Your task to perform on an android device: Do I have any events this weekend? Image 0: 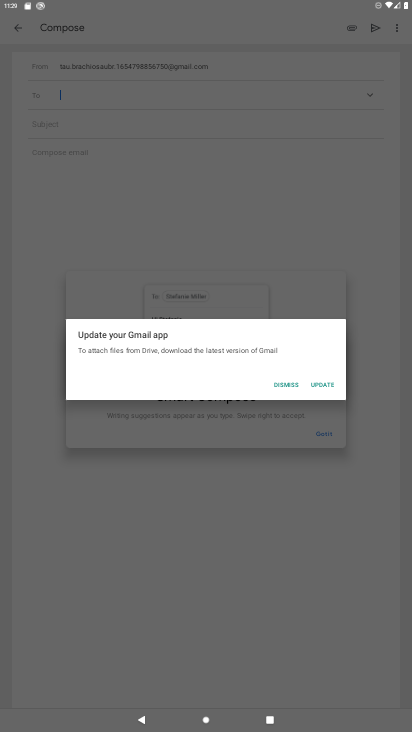
Step 0: press home button
Your task to perform on an android device: Do I have any events this weekend? Image 1: 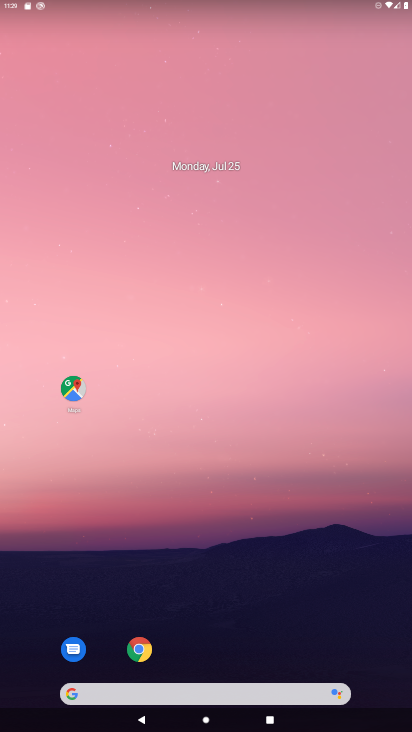
Step 1: drag from (375, 636) to (315, 111)
Your task to perform on an android device: Do I have any events this weekend? Image 2: 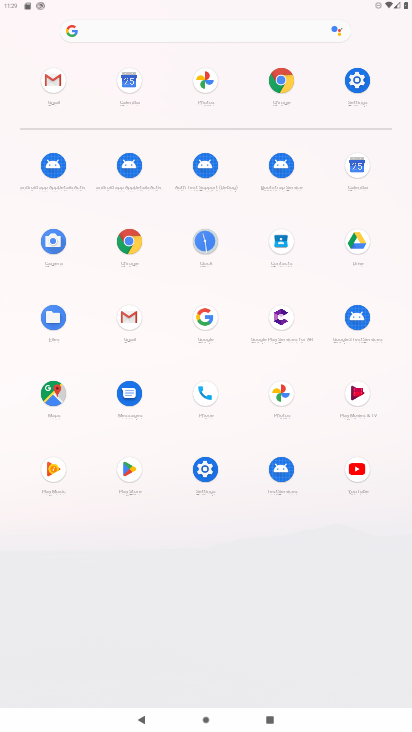
Step 2: click (353, 161)
Your task to perform on an android device: Do I have any events this weekend? Image 3: 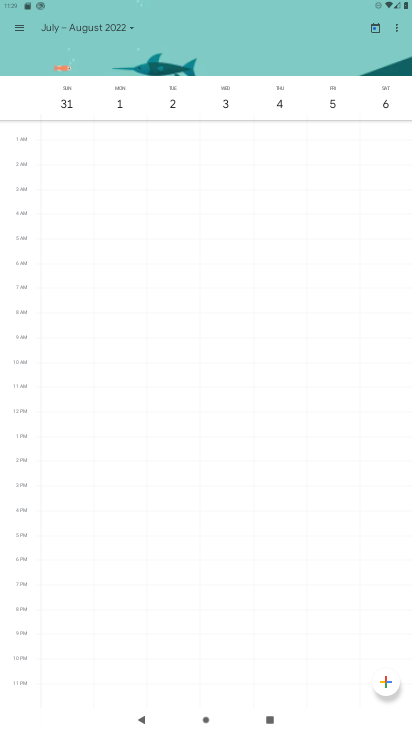
Step 3: click (135, 30)
Your task to perform on an android device: Do I have any events this weekend? Image 4: 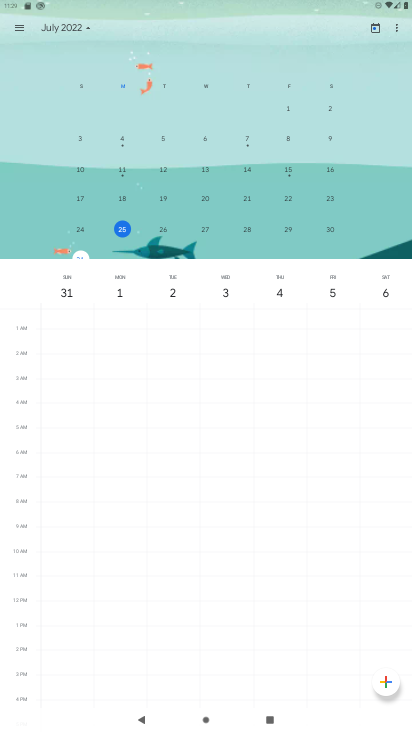
Step 4: click (124, 228)
Your task to perform on an android device: Do I have any events this weekend? Image 5: 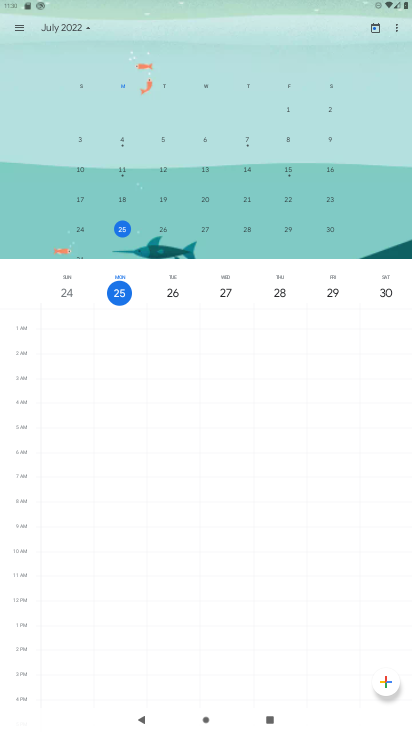
Step 5: task complete